Your task to perform on an android device: turn on the 12-hour format for clock Image 0: 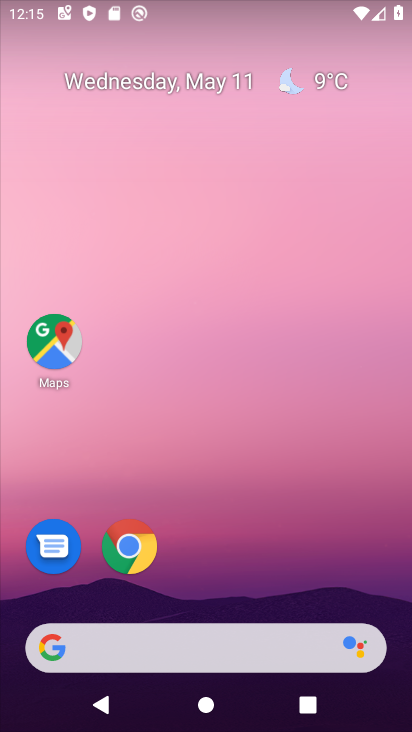
Step 0: drag from (280, 633) to (189, 27)
Your task to perform on an android device: turn on the 12-hour format for clock Image 1: 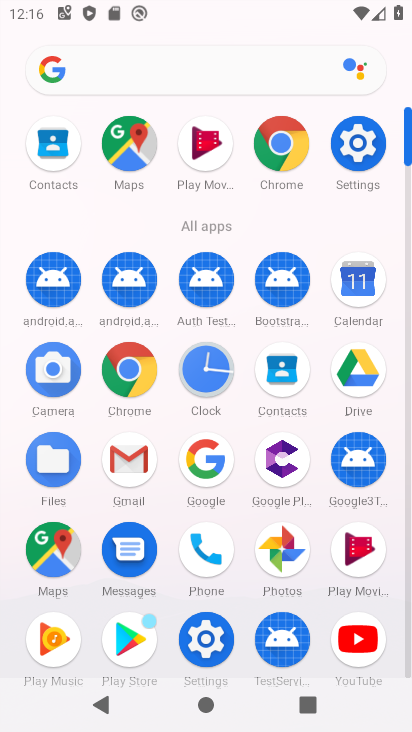
Step 1: click (212, 362)
Your task to perform on an android device: turn on the 12-hour format for clock Image 2: 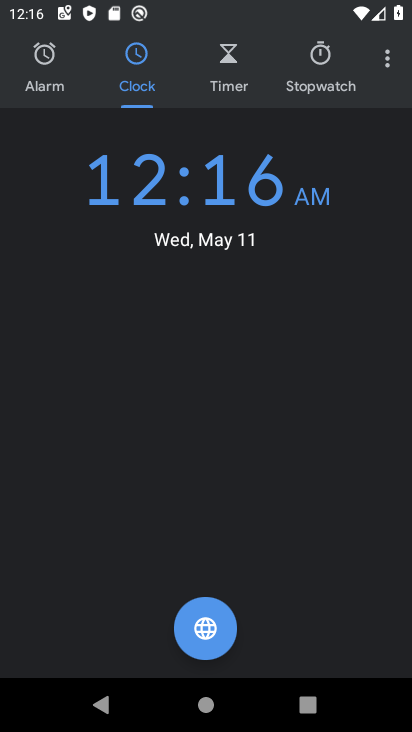
Step 2: click (389, 51)
Your task to perform on an android device: turn on the 12-hour format for clock Image 3: 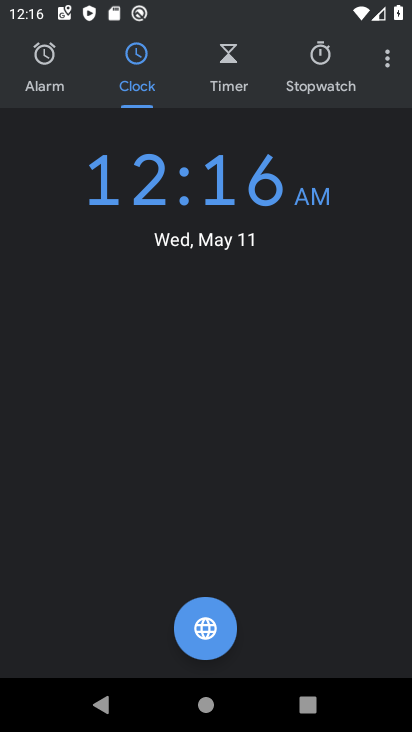
Step 3: click (384, 89)
Your task to perform on an android device: turn on the 12-hour format for clock Image 4: 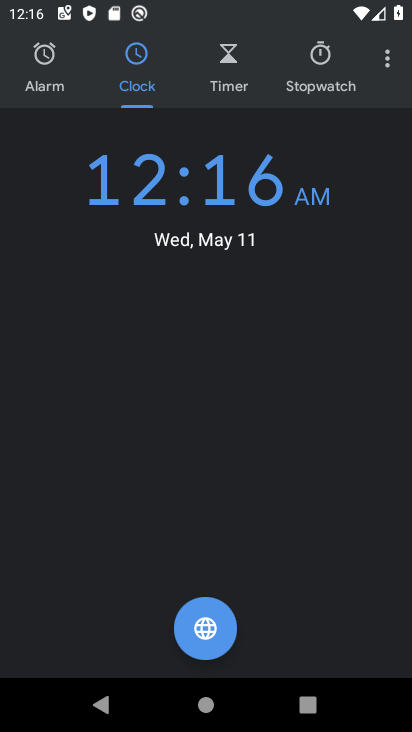
Step 4: click (398, 63)
Your task to perform on an android device: turn on the 12-hour format for clock Image 5: 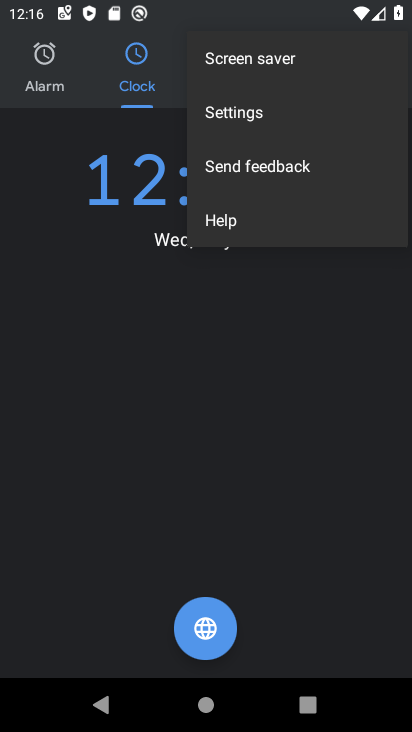
Step 5: click (271, 106)
Your task to perform on an android device: turn on the 12-hour format for clock Image 6: 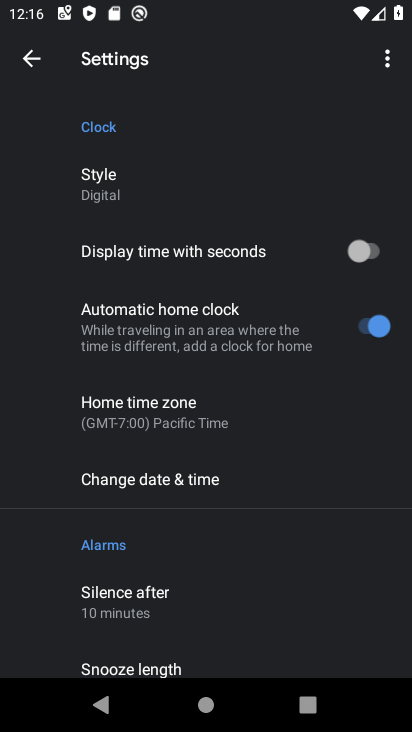
Step 6: click (232, 490)
Your task to perform on an android device: turn on the 12-hour format for clock Image 7: 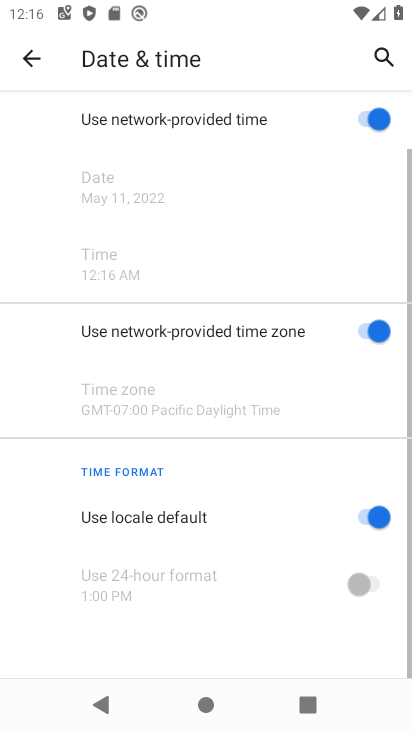
Step 7: drag from (232, 490) to (287, 274)
Your task to perform on an android device: turn on the 12-hour format for clock Image 8: 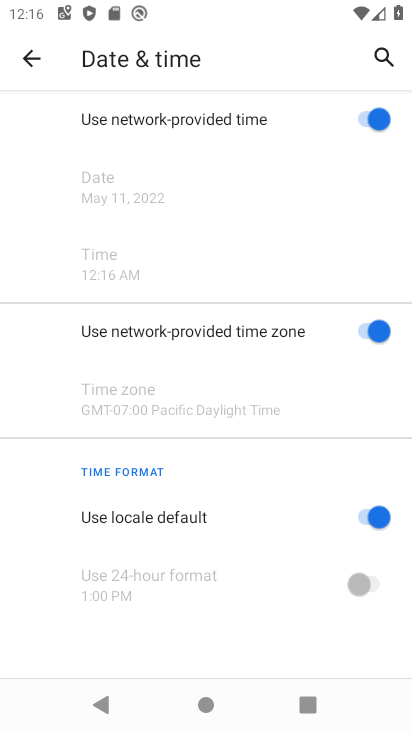
Step 8: click (367, 515)
Your task to perform on an android device: turn on the 12-hour format for clock Image 9: 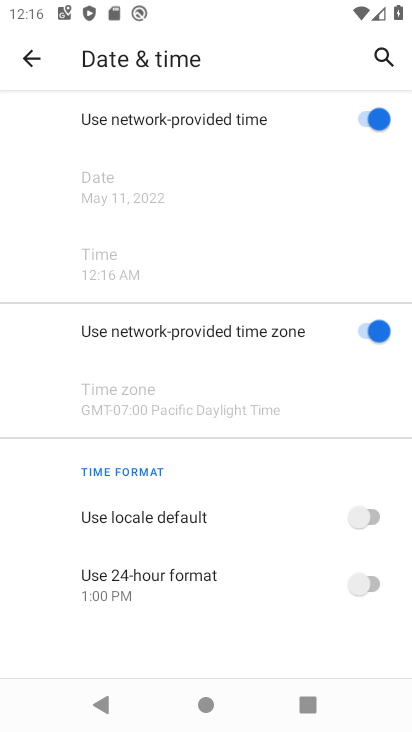
Step 9: task complete